Your task to perform on an android device: Clear all items from cart on amazon. Image 0: 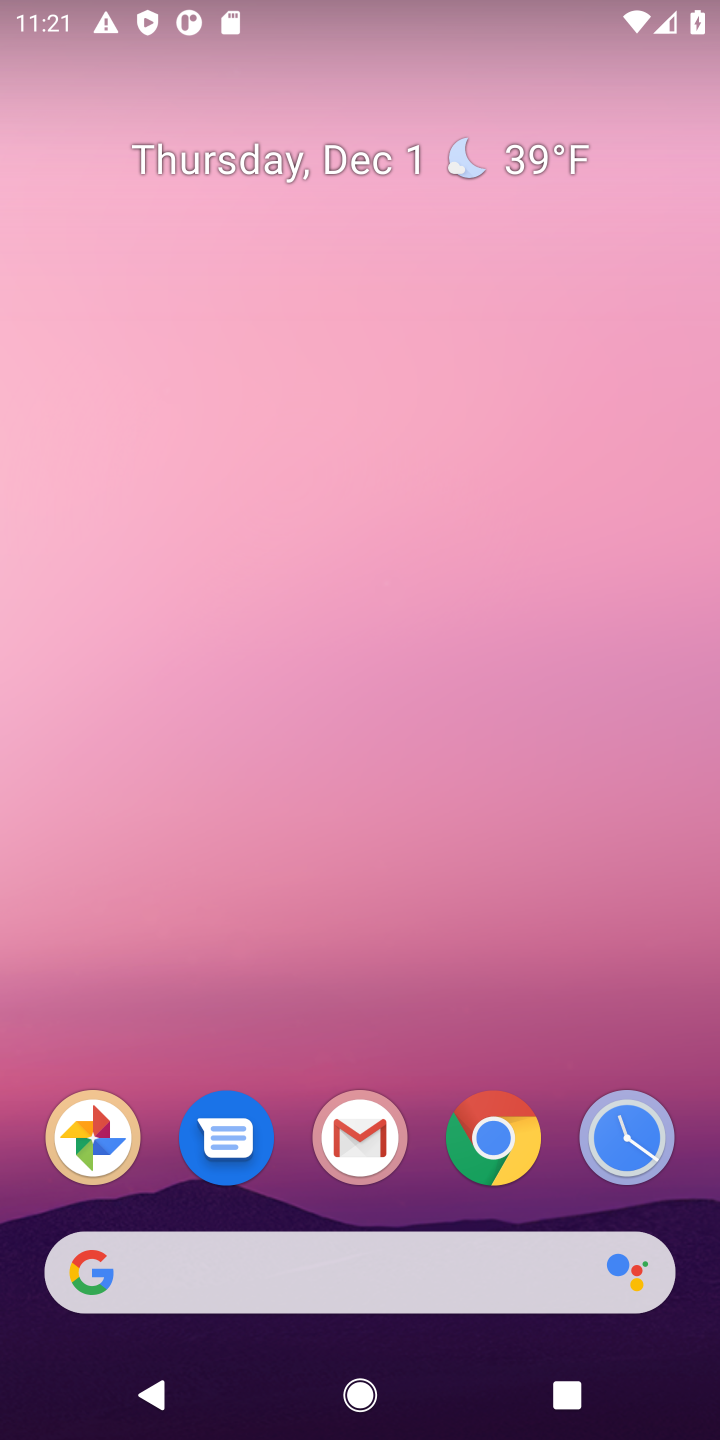
Step 0: drag from (299, 1259) to (326, 105)
Your task to perform on an android device: Clear all items from cart on amazon. Image 1: 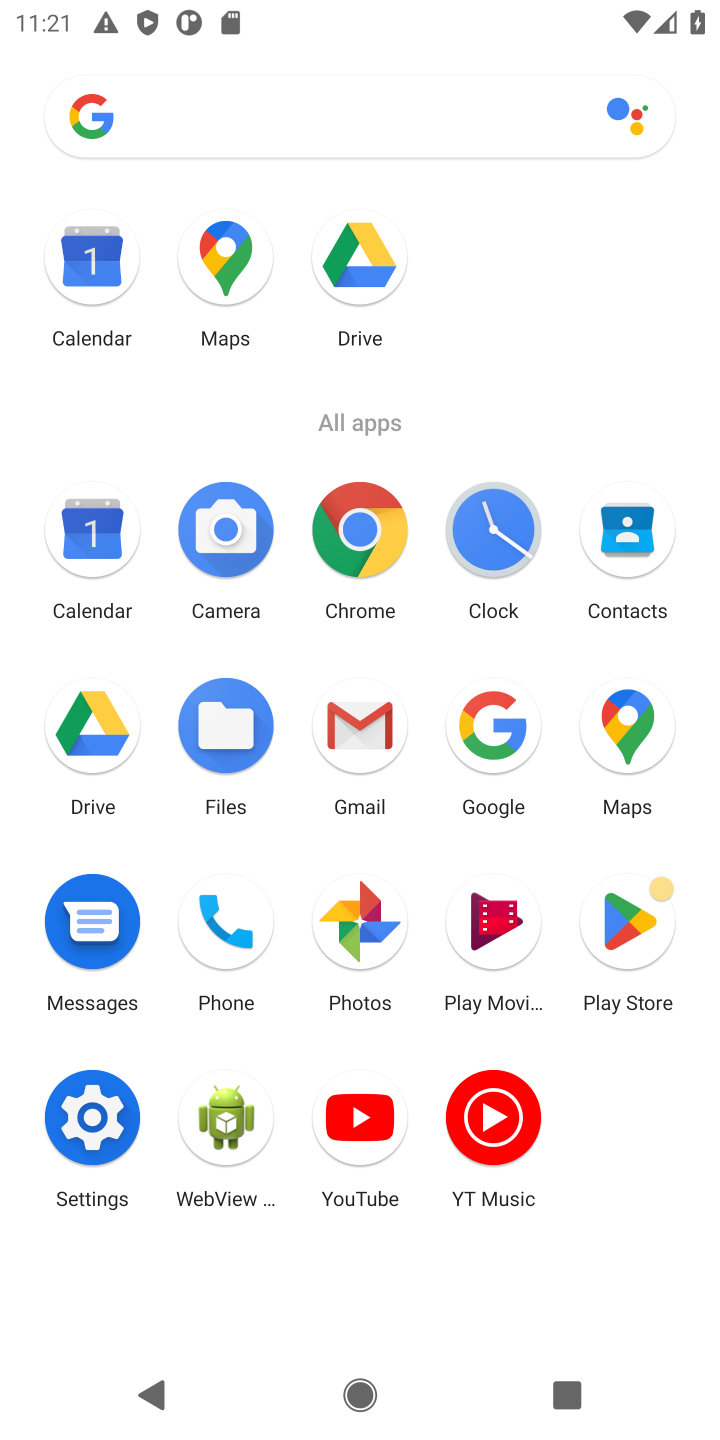
Step 1: click (481, 780)
Your task to perform on an android device: Clear all items from cart on amazon. Image 2: 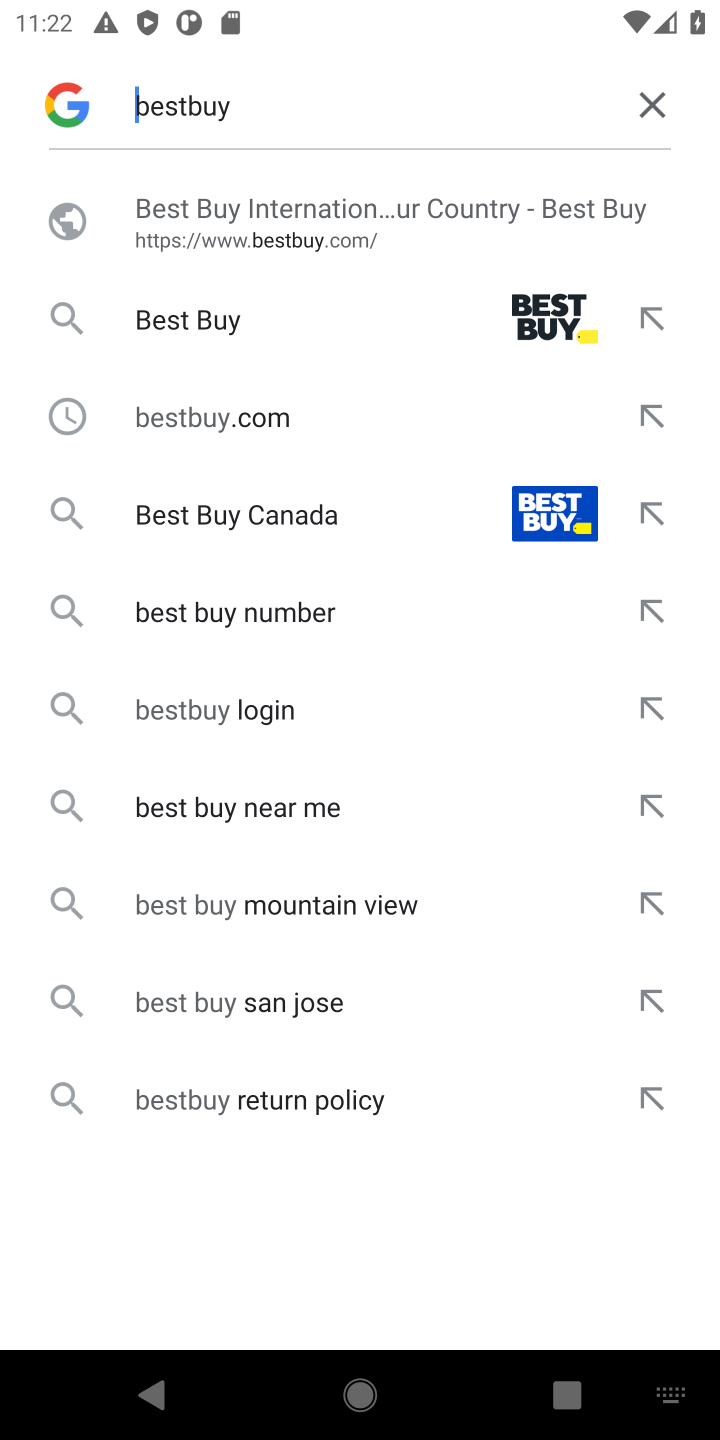
Step 2: click (650, 100)
Your task to perform on an android device: Clear all items from cart on amazon. Image 3: 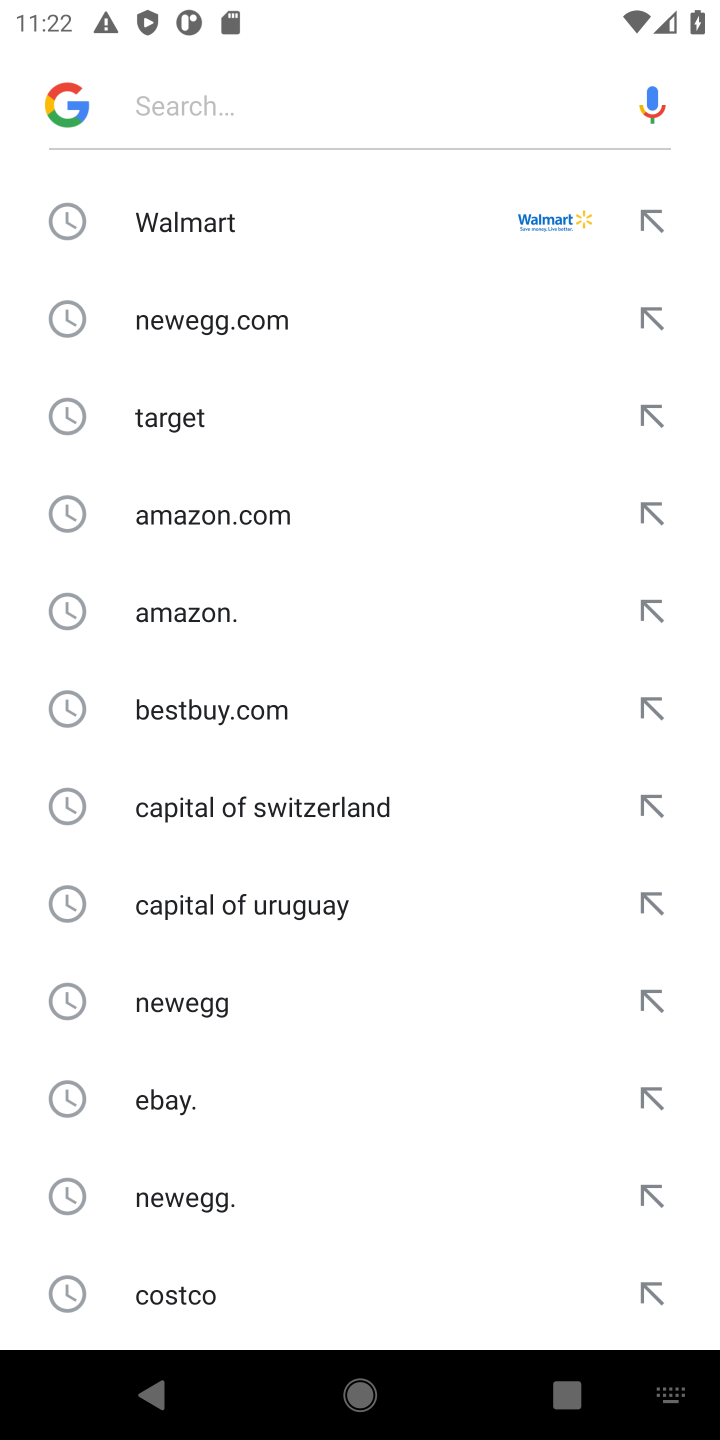
Step 3: type "amazon"
Your task to perform on an android device: Clear all items from cart on amazon. Image 4: 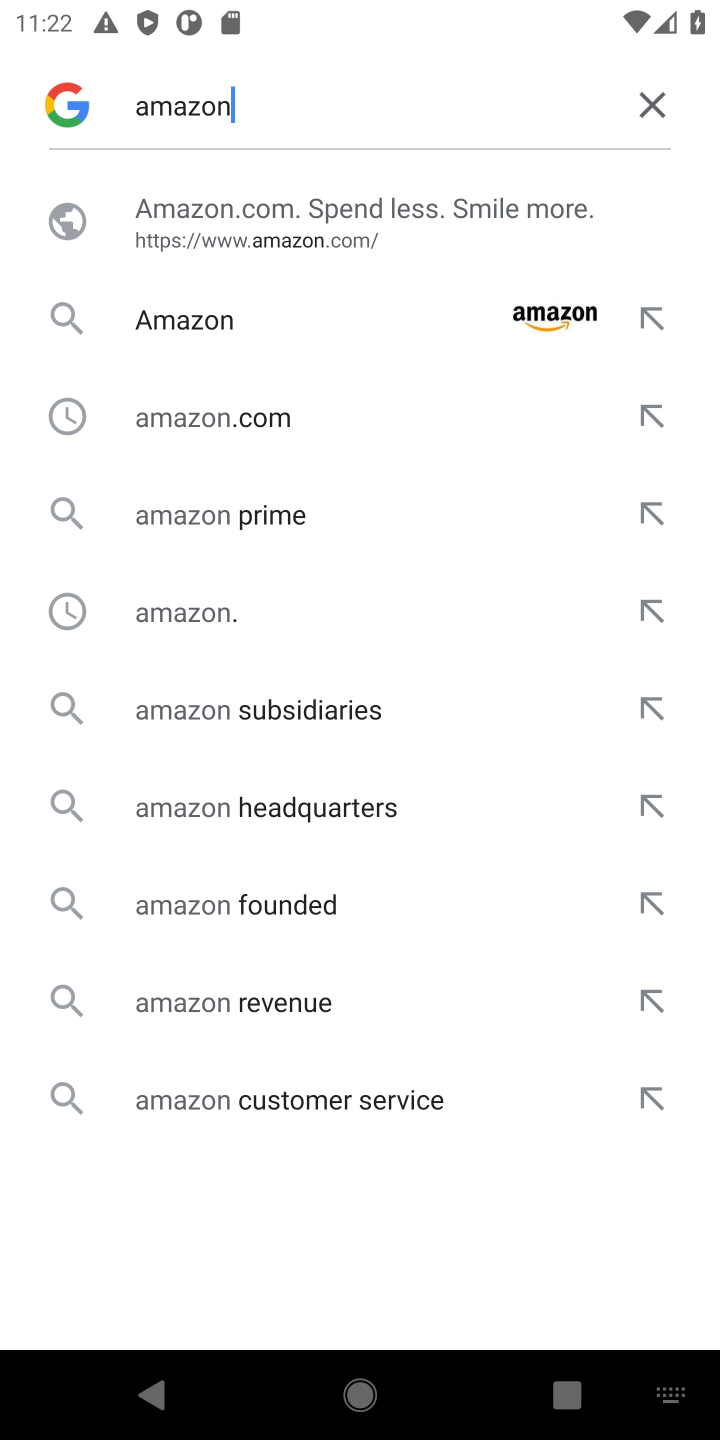
Step 4: click (134, 240)
Your task to perform on an android device: Clear all items from cart on amazon. Image 5: 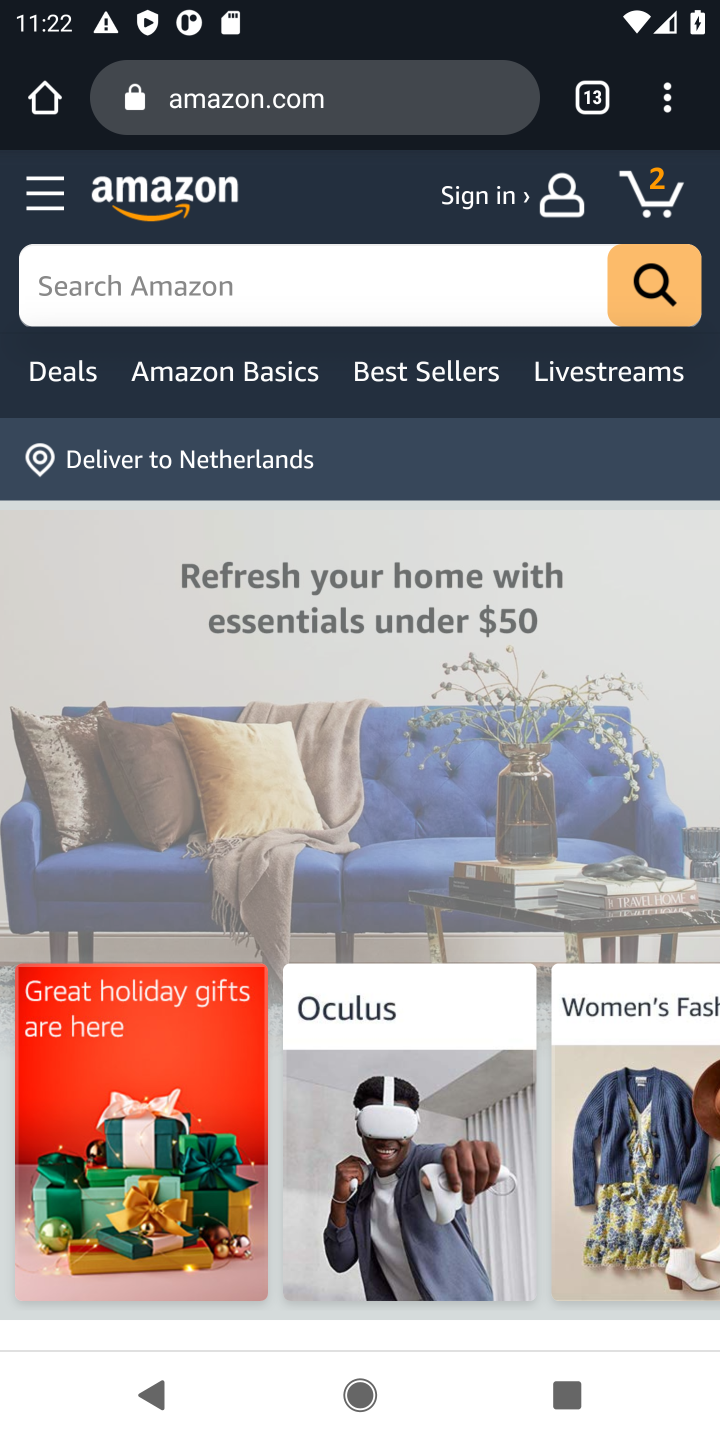
Step 5: click (652, 189)
Your task to perform on an android device: Clear all items from cart on amazon. Image 6: 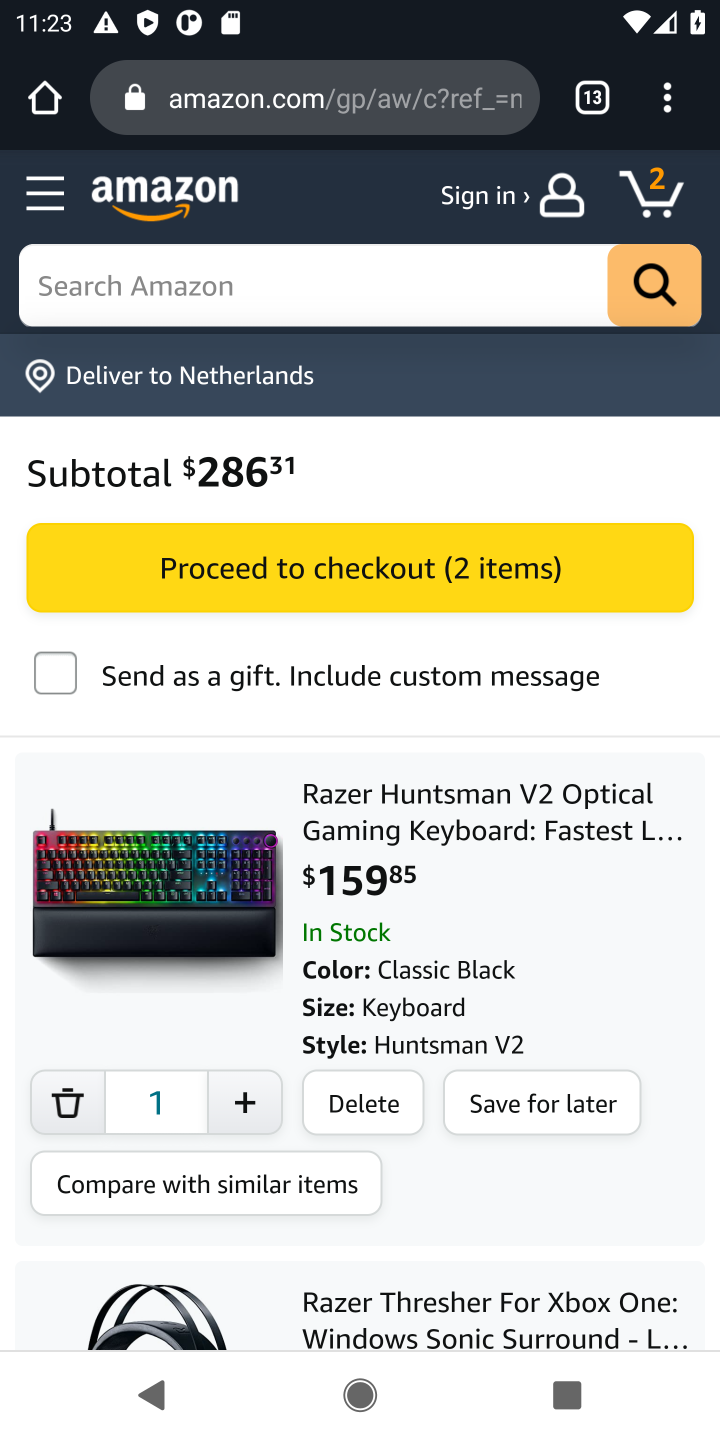
Step 6: click (371, 1097)
Your task to perform on an android device: Clear all items from cart on amazon. Image 7: 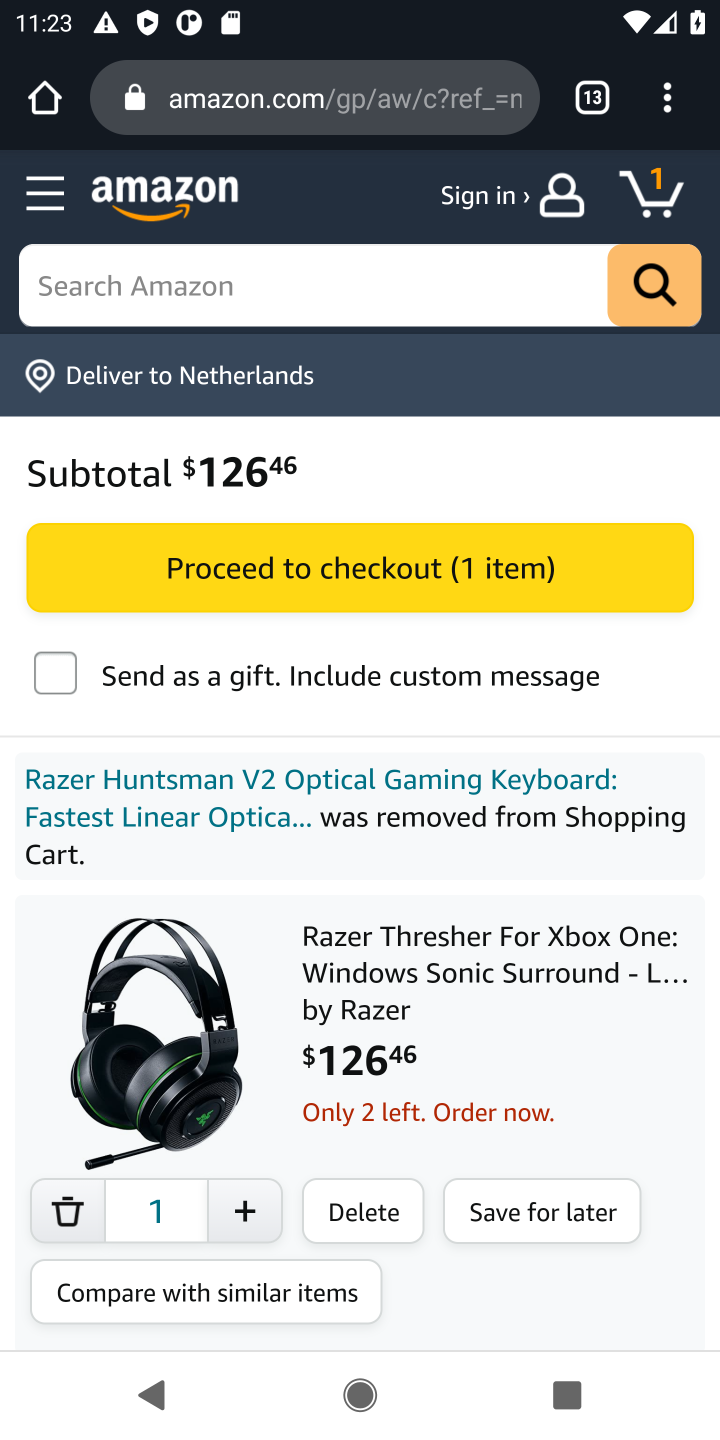
Step 7: click (356, 1213)
Your task to perform on an android device: Clear all items from cart on amazon. Image 8: 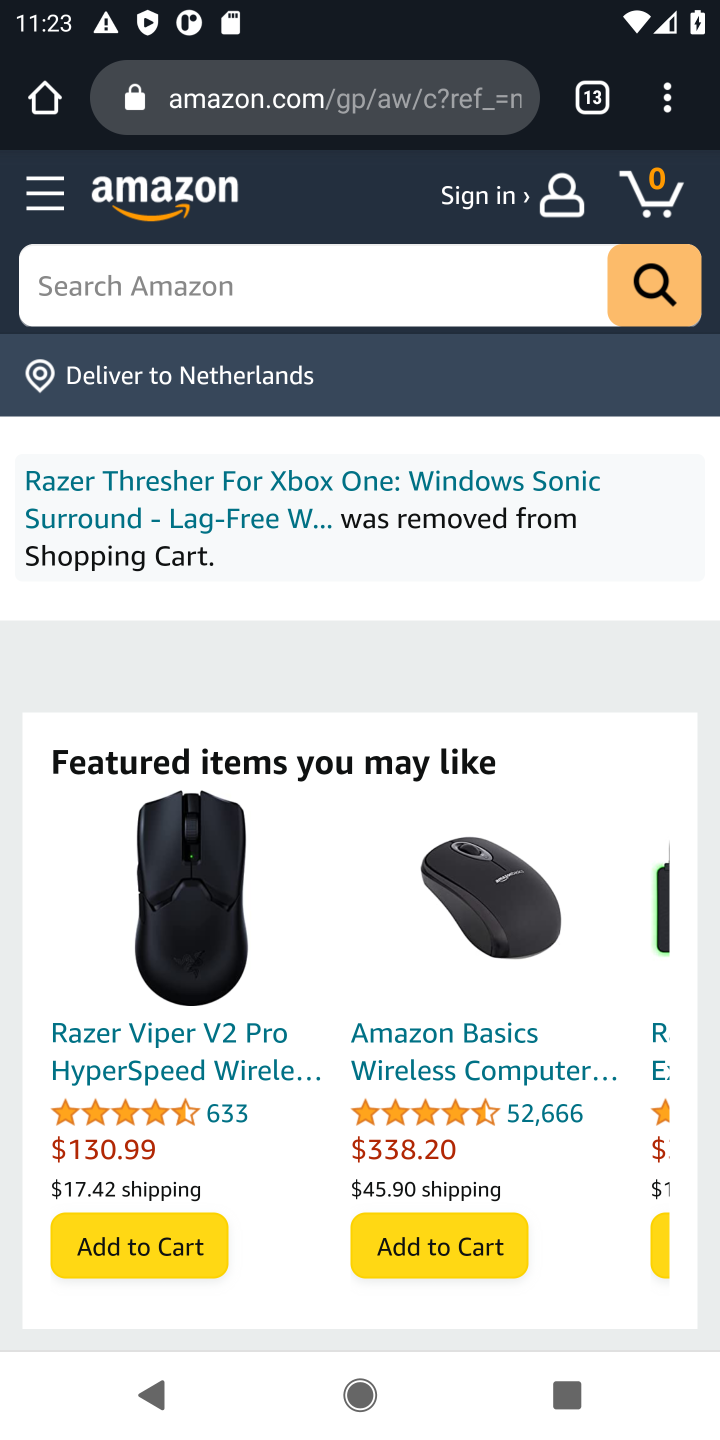
Step 8: task complete